Your task to perform on an android device: Check the weather Image 0: 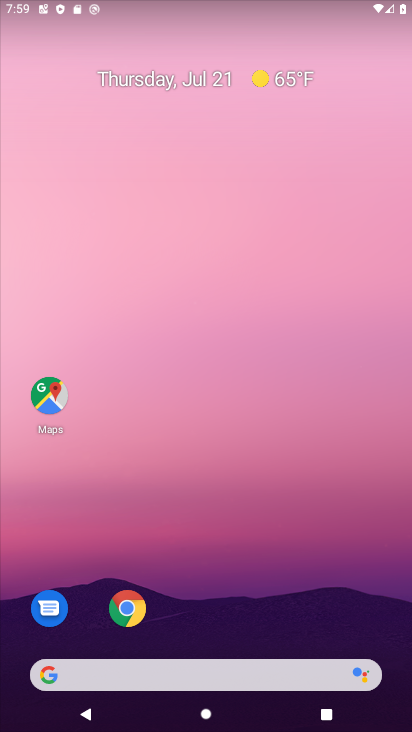
Step 0: drag from (182, 682) to (245, 39)
Your task to perform on an android device: Check the weather Image 1: 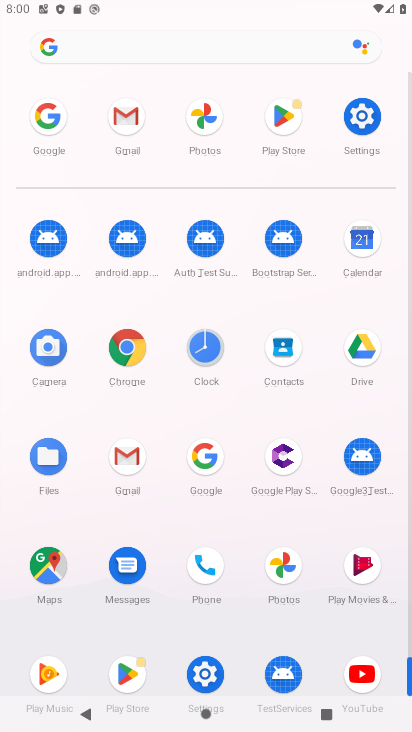
Step 1: click (204, 456)
Your task to perform on an android device: Check the weather Image 2: 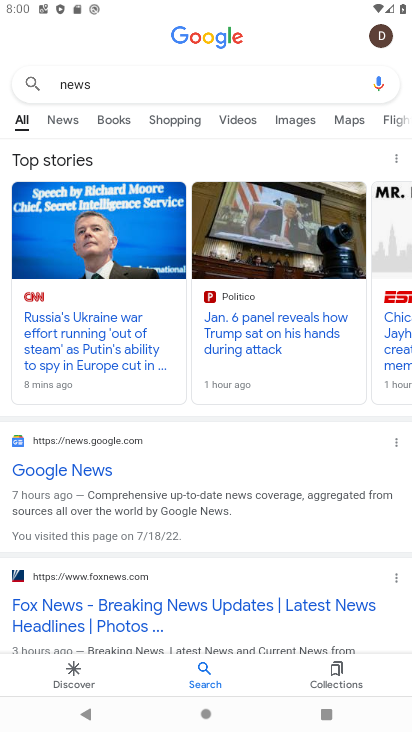
Step 2: click (322, 83)
Your task to perform on an android device: Check the weather Image 3: 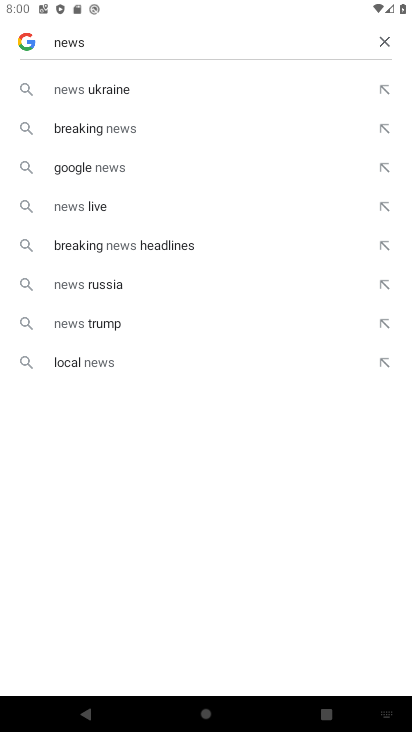
Step 3: click (383, 35)
Your task to perform on an android device: Check the weather Image 4: 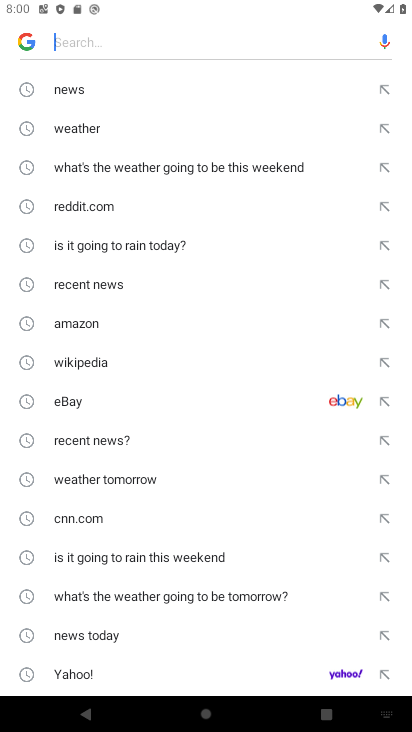
Step 4: click (89, 129)
Your task to perform on an android device: Check the weather Image 5: 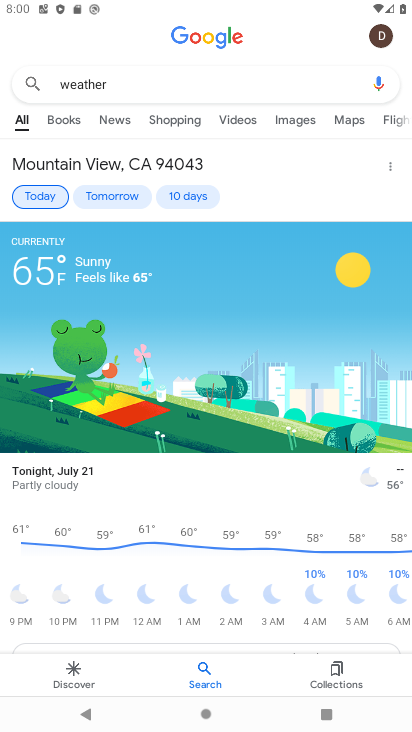
Step 5: task complete